Your task to perform on an android device: Open calendar and show me the first week of next month Image 0: 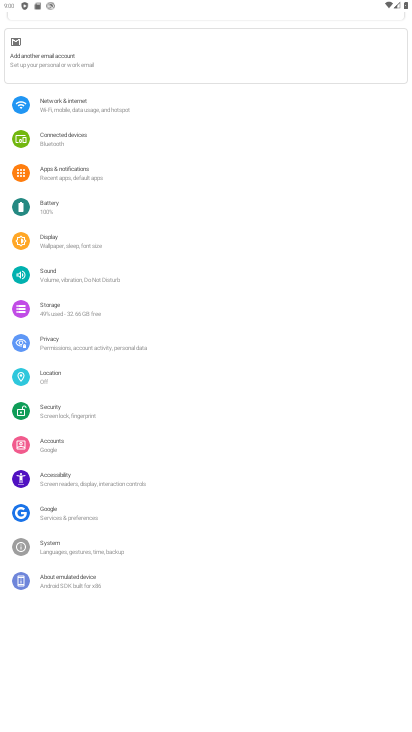
Step 0: press home button
Your task to perform on an android device: Open calendar and show me the first week of next month Image 1: 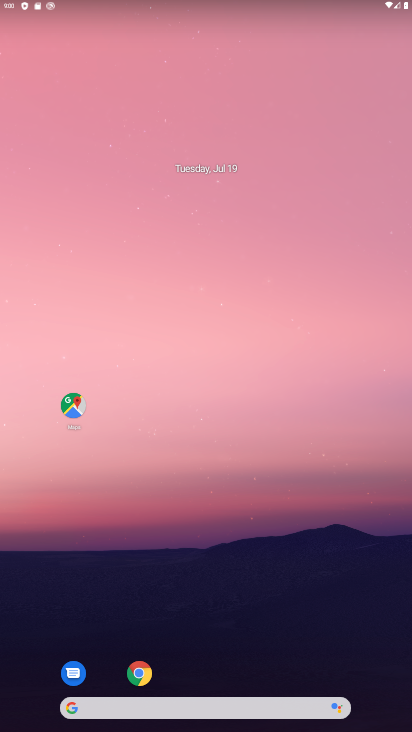
Step 1: drag from (201, 649) to (202, 154)
Your task to perform on an android device: Open calendar and show me the first week of next month Image 2: 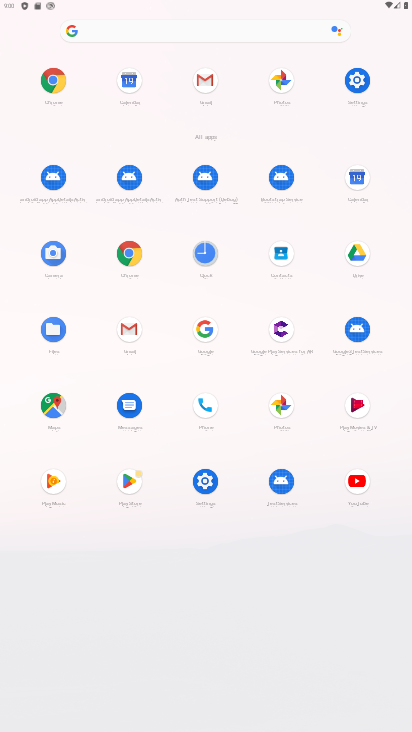
Step 2: click (346, 191)
Your task to perform on an android device: Open calendar and show me the first week of next month Image 3: 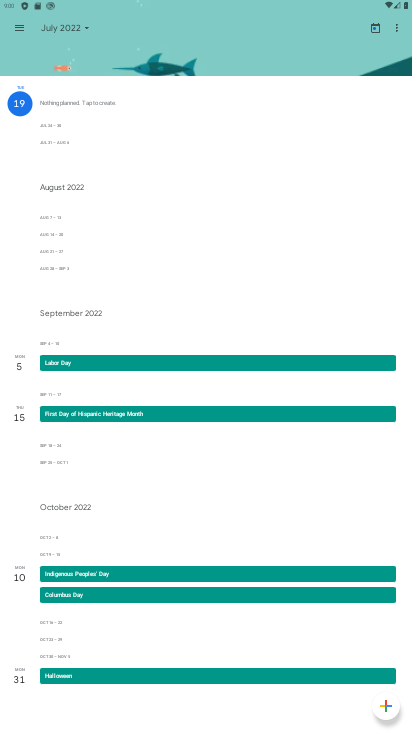
Step 3: click (70, 39)
Your task to perform on an android device: Open calendar and show me the first week of next month Image 4: 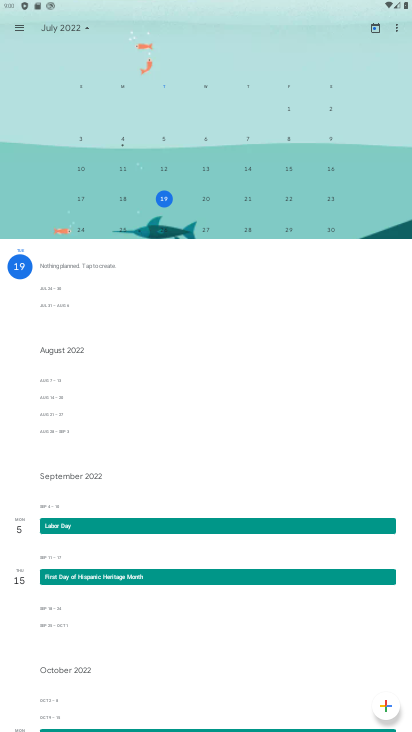
Step 4: drag from (368, 143) to (13, 119)
Your task to perform on an android device: Open calendar and show me the first week of next month Image 5: 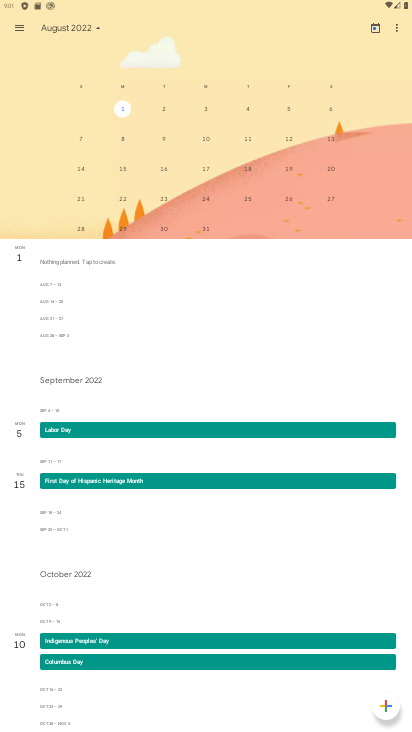
Step 5: click (128, 112)
Your task to perform on an android device: Open calendar and show me the first week of next month Image 6: 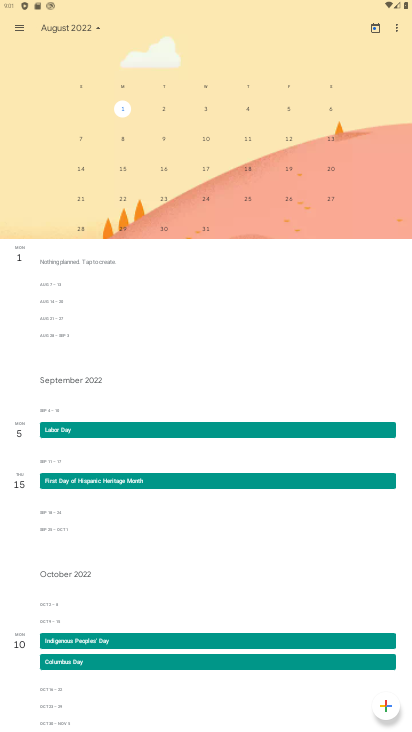
Step 6: task complete